Your task to perform on an android device: see sites visited before in the chrome app Image 0: 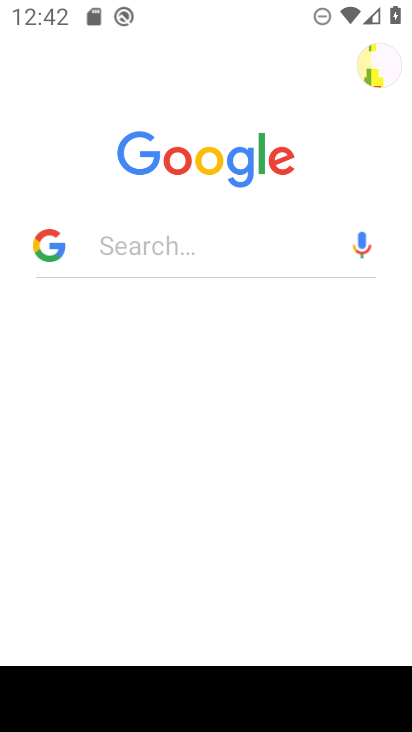
Step 0: press home button
Your task to perform on an android device: see sites visited before in the chrome app Image 1: 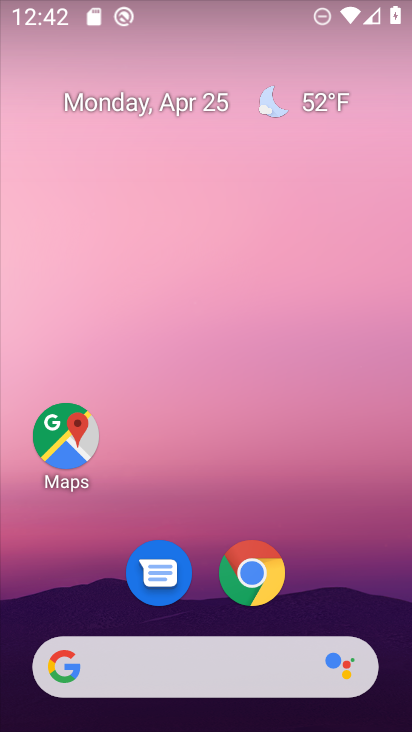
Step 1: click (262, 570)
Your task to perform on an android device: see sites visited before in the chrome app Image 2: 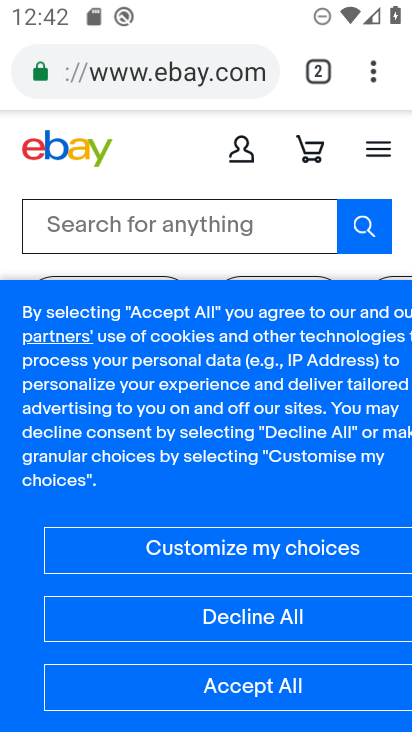
Step 2: task complete